Your task to perform on an android device: Open my contact list Image 0: 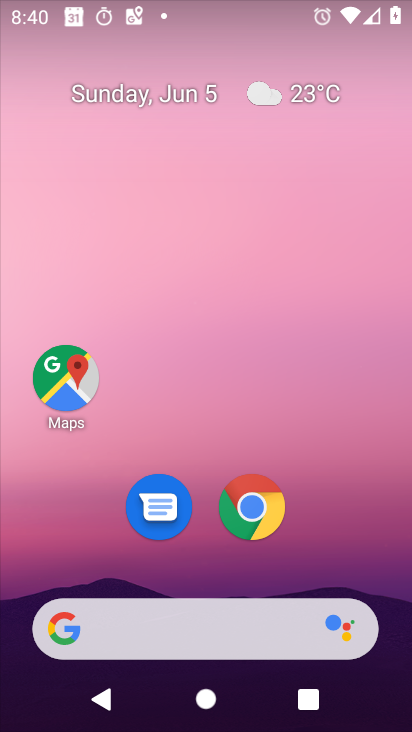
Step 0: drag from (244, 645) to (179, 16)
Your task to perform on an android device: Open my contact list Image 1: 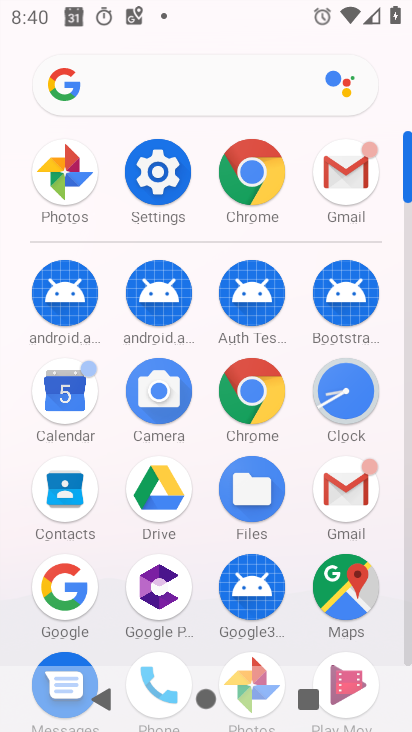
Step 1: click (161, 655)
Your task to perform on an android device: Open my contact list Image 2: 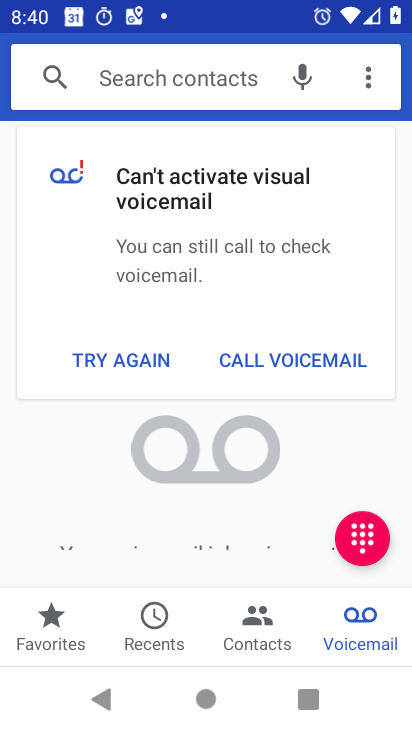
Step 2: click (242, 628)
Your task to perform on an android device: Open my contact list Image 3: 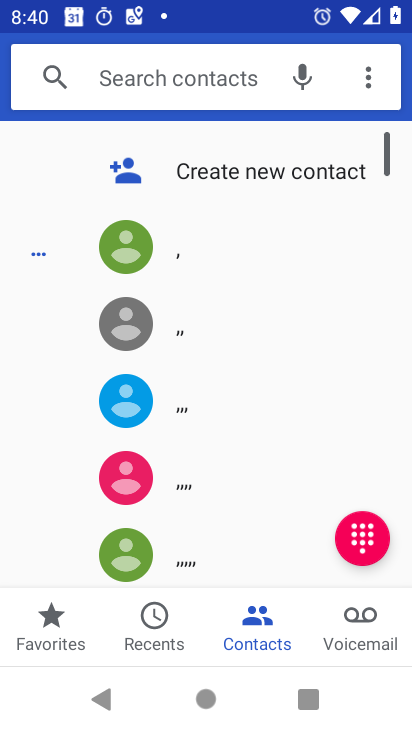
Step 3: task complete